Your task to perform on an android device: allow cookies in the chrome app Image 0: 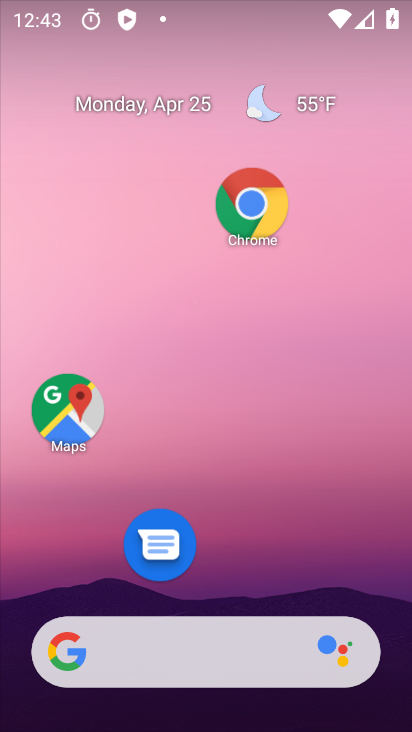
Step 0: drag from (332, 578) to (378, 151)
Your task to perform on an android device: allow cookies in the chrome app Image 1: 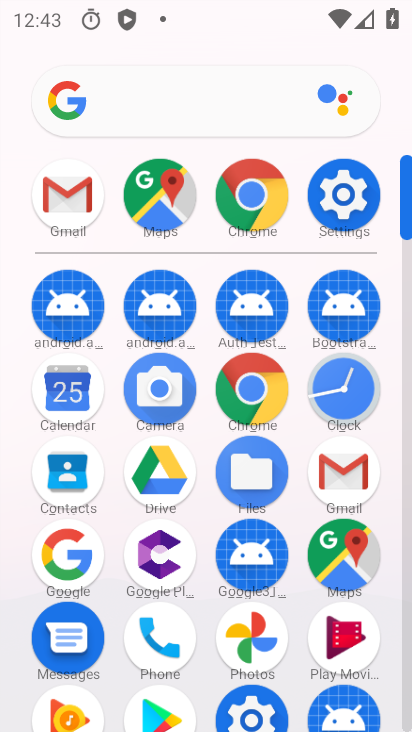
Step 1: click (263, 190)
Your task to perform on an android device: allow cookies in the chrome app Image 2: 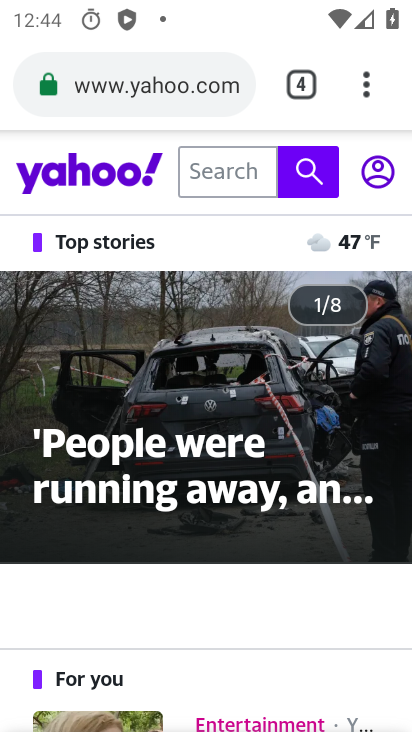
Step 2: click (360, 96)
Your task to perform on an android device: allow cookies in the chrome app Image 3: 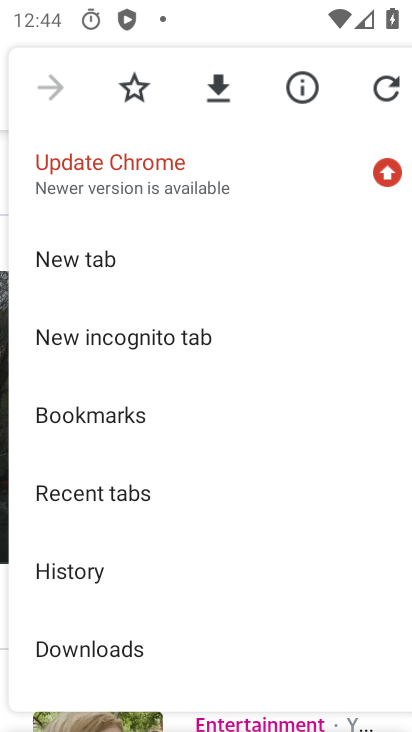
Step 3: drag from (186, 589) to (262, 295)
Your task to perform on an android device: allow cookies in the chrome app Image 4: 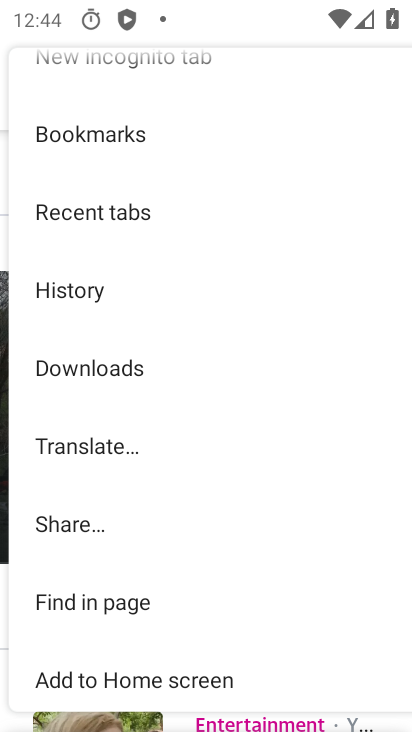
Step 4: drag from (137, 591) to (164, 396)
Your task to perform on an android device: allow cookies in the chrome app Image 5: 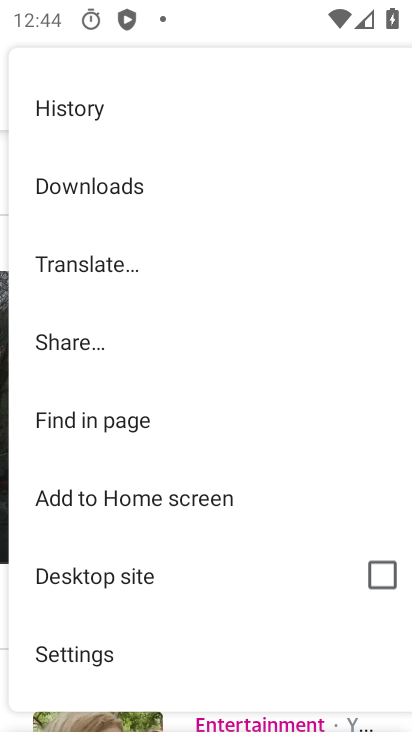
Step 5: click (115, 664)
Your task to perform on an android device: allow cookies in the chrome app Image 6: 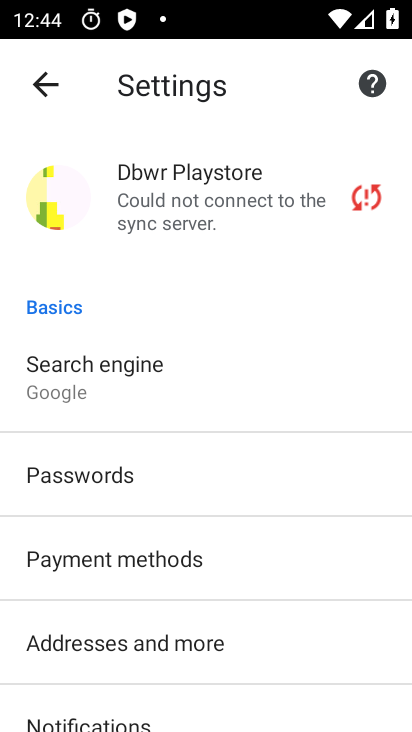
Step 6: drag from (130, 618) to (166, 353)
Your task to perform on an android device: allow cookies in the chrome app Image 7: 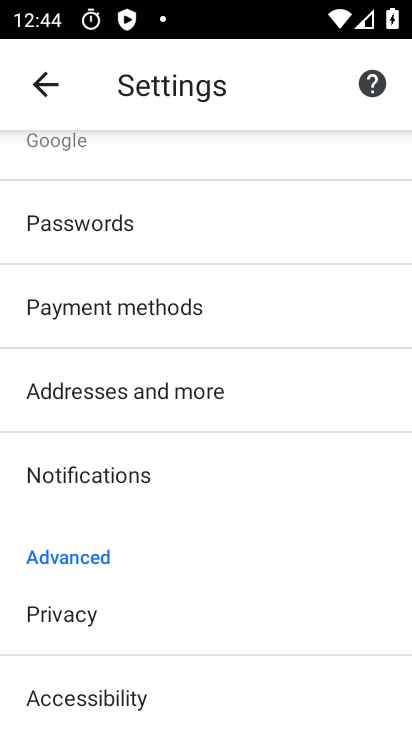
Step 7: drag from (145, 593) to (202, 338)
Your task to perform on an android device: allow cookies in the chrome app Image 8: 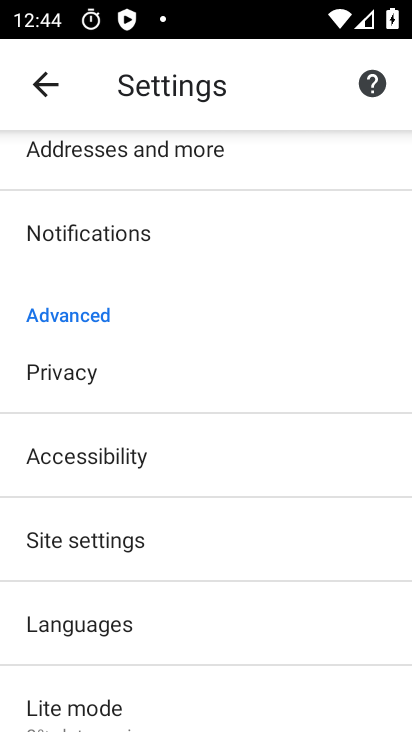
Step 8: drag from (156, 610) to (168, 481)
Your task to perform on an android device: allow cookies in the chrome app Image 9: 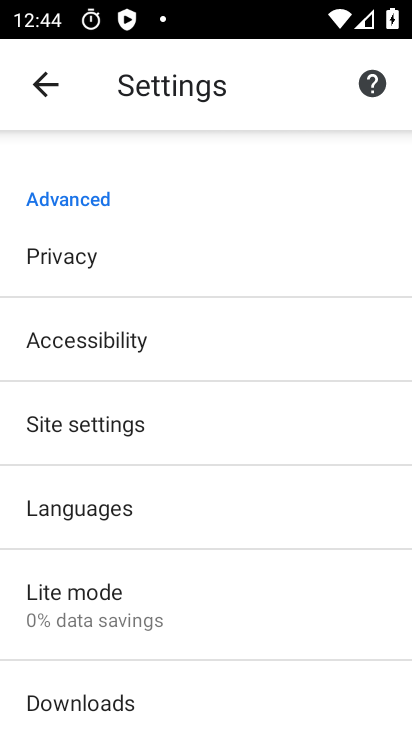
Step 9: click (101, 430)
Your task to perform on an android device: allow cookies in the chrome app Image 10: 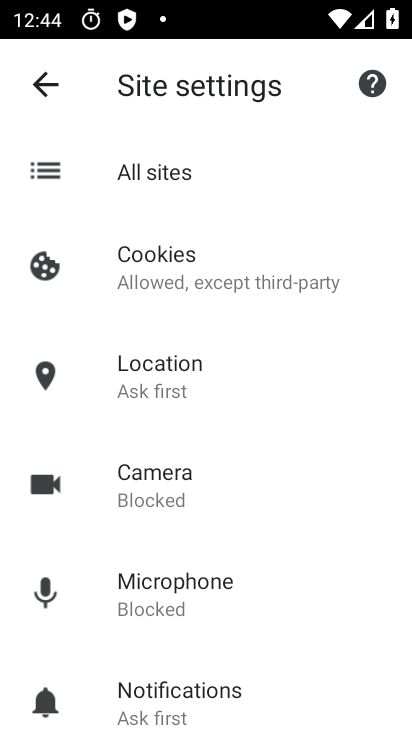
Step 10: drag from (251, 608) to (290, 308)
Your task to perform on an android device: allow cookies in the chrome app Image 11: 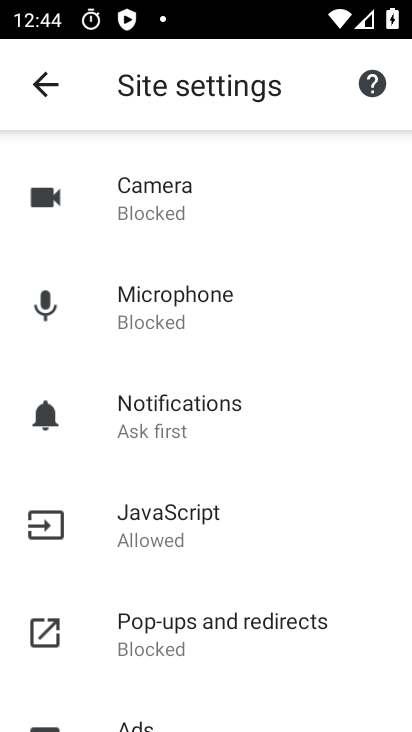
Step 11: drag from (231, 281) to (205, 585)
Your task to perform on an android device: allow cookies in the chrome app Image 12: 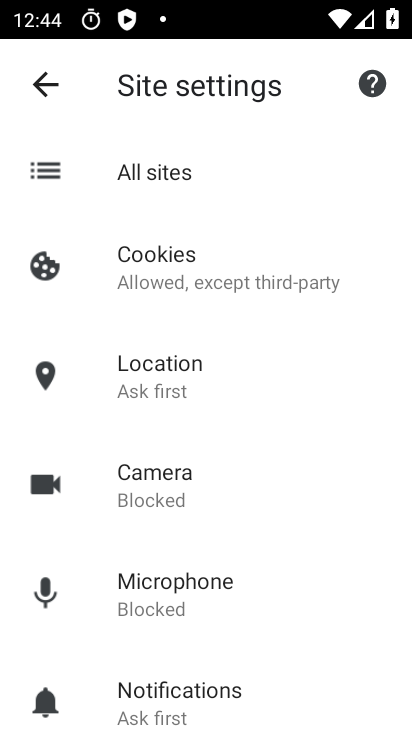
Step 12: click (217, 271)
Your task to perform on an android device: allow cookies in the chrome app Image 13: 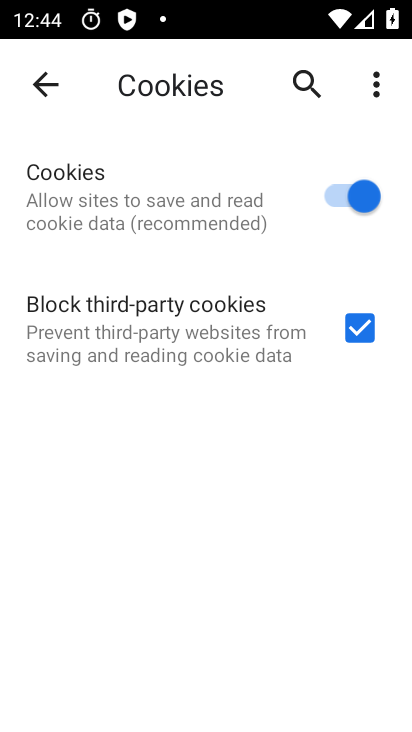
Step 13: task complete